Your task to perform on an android device: Open Youtube and go to "Your channel" Image 0: 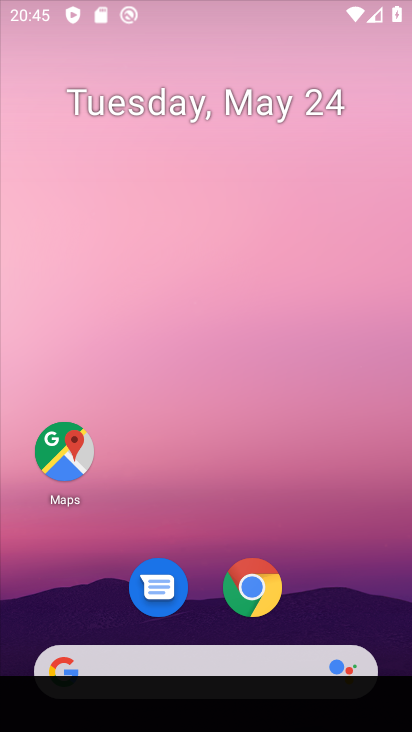
Step 0: drag from (307, 559) to (256, 73)
Your task to perform on an android device: Open Youtube and go to "Your channel" Image 1: 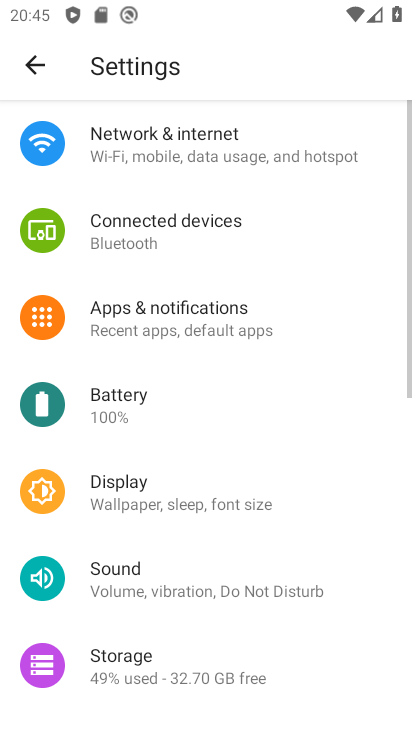
Step 1: press back button
Your task to perform on an android device: Open Youtube and go to "Your channel" Image 2: 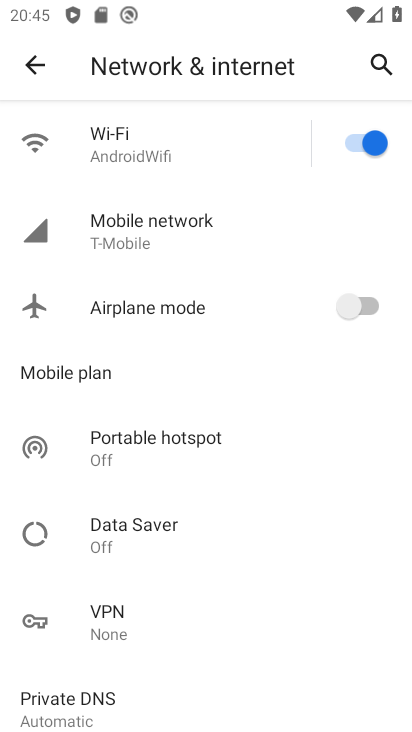
Step 2: press back button
Your task to perform on an android device: Open Youtube and go to "Your channel" Image 3: 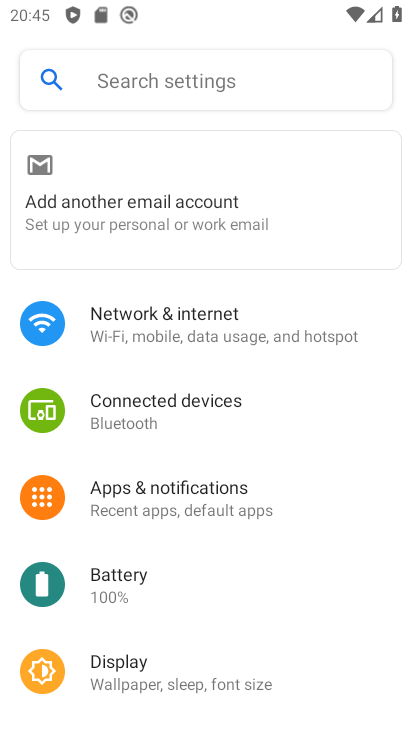
Step 3: press home button
Your task to perform on an android device: Open Youtube and go to "Your channel" Image 4: 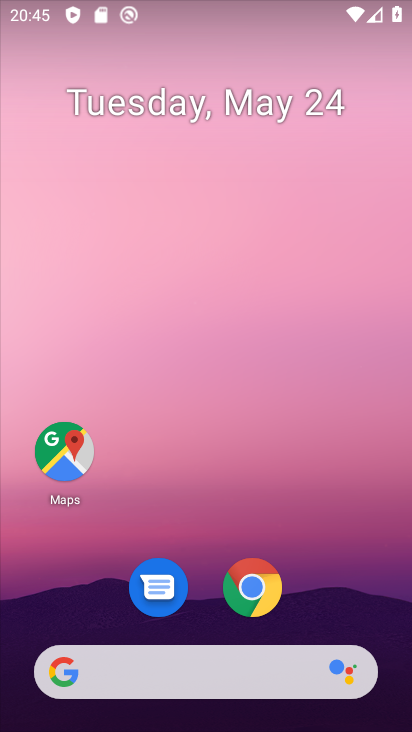
Step 4: drag from (312, 564) to (272, 21)
Your task to perform on an android device: Open Youtube and go to "Your channel" Image 5: 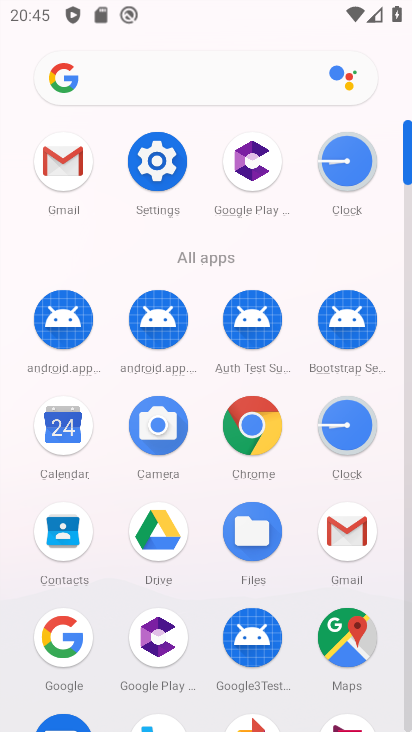
Step 5: drag from (6, 607) to (20, 289)
Your task to perform on an android device: Open Youtube and go to "Your channel" Image 6: 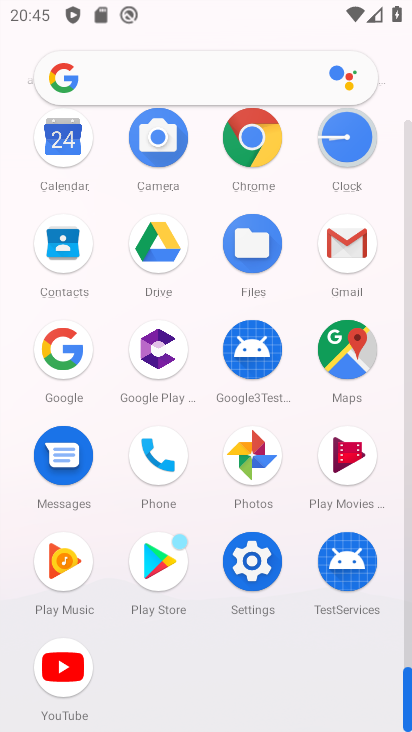
Step 6: click (62, 673)
Your task to perform on an android device: Open Youtube and go to "Your channel" Image 7: 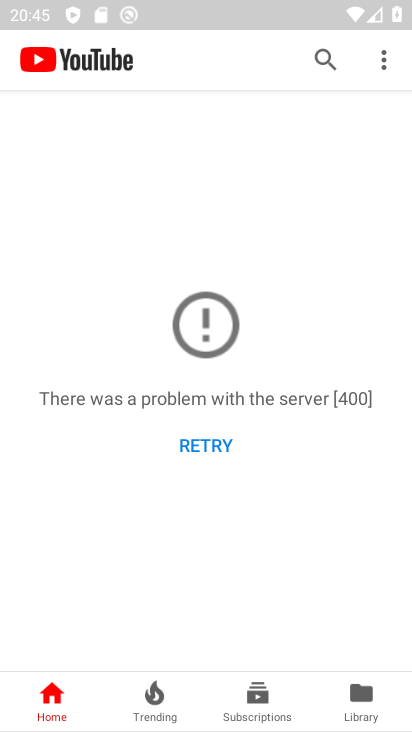
Step 7: click (363, 704)
Your task to perform on an android device: Open Youtube and go to "Your channel" Image 8: 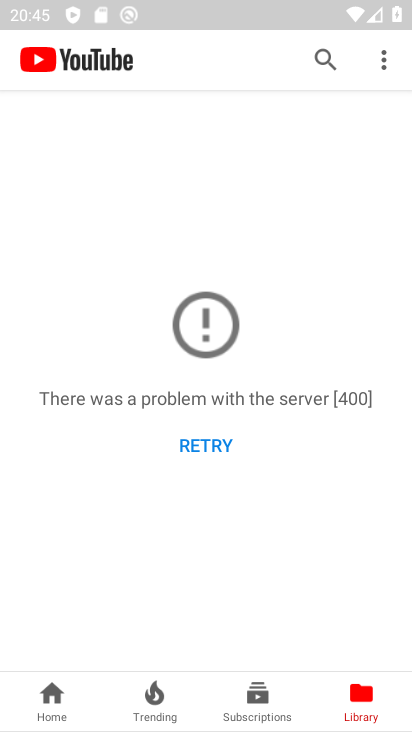
Step 8: click (60, 696)
Your task to perform on an android device: Open Youtube and go to "Your channel" Image 9: 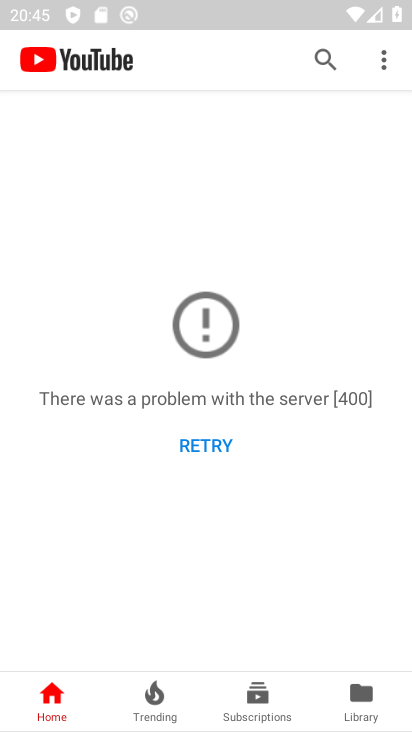
Step 9: task complete